Your task to perform on an android device: Open Maps and search for coffee Image 0: 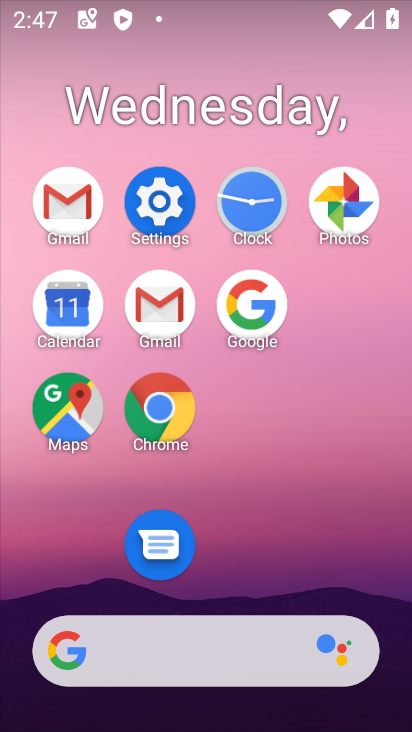
Step 0: click (72, 399)
Your task to perform on an android device: Open Maps and search for coffee Image 1: 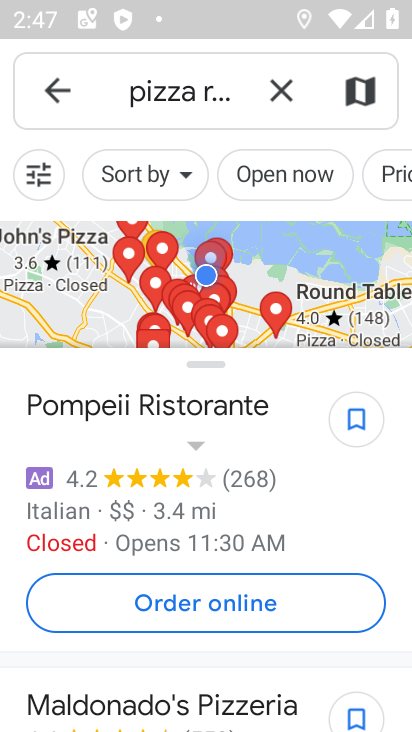
Step 1: click (288, 99)
Your task to perform on an android device: Open Maps and search for coffee Image 2: 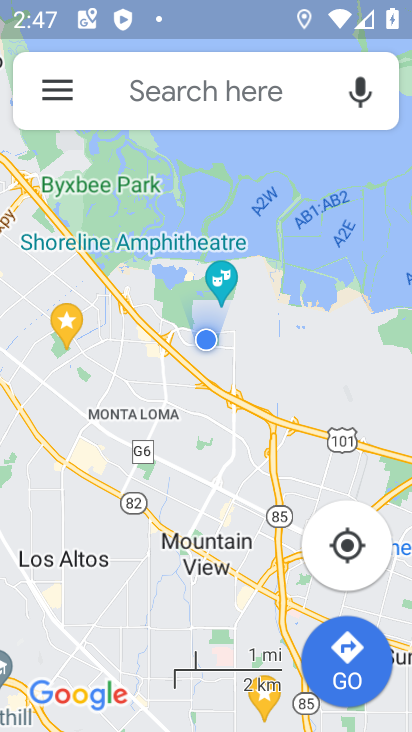
Step 2: click (242, 92)
Your task to perform on an android device: Open Maps and search for coffee Image 3: 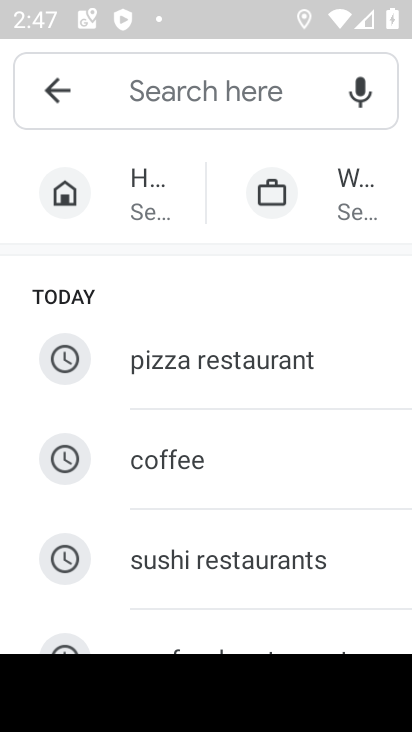
Step 3: click (258, 461)
Your task to perform on an android device: Open Maps and search for coffee Image 4: 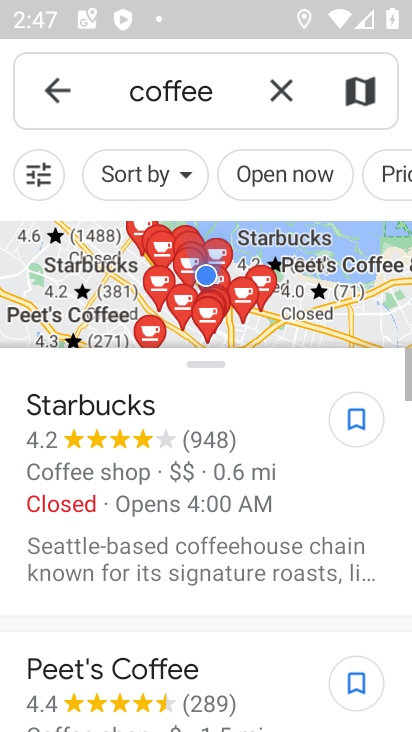
Step 4: task complete